Your task to perform on an android device: check data usage Image 0: 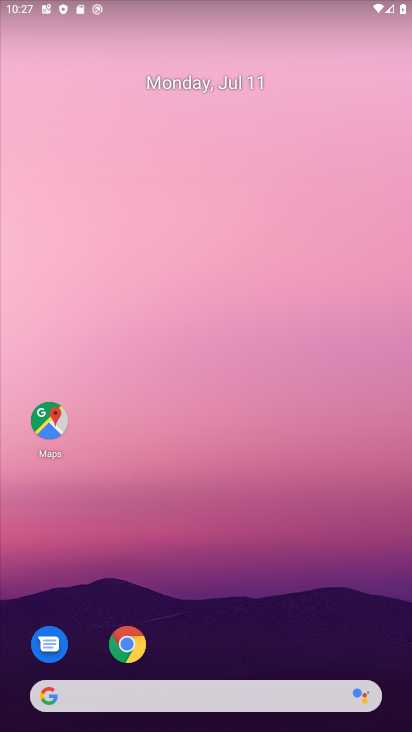
Step 0: press home button
Your task to perform on an android device: check data usage Image 1: 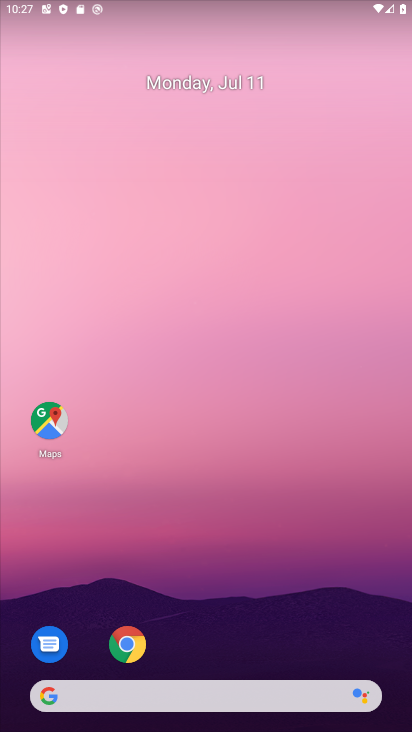
Step 1: drag from (210, 644) to (291, 79)
Your task to perform on an android device: check data usage Image 2: 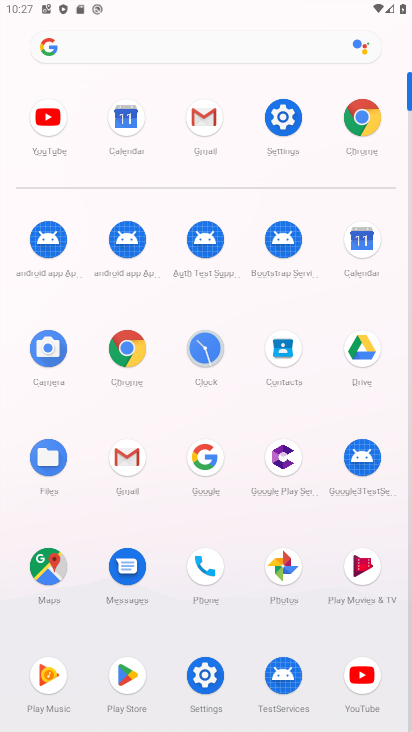
Step 2: click (281, 113)
Your task to perform on an android device: check data usage Image 3: 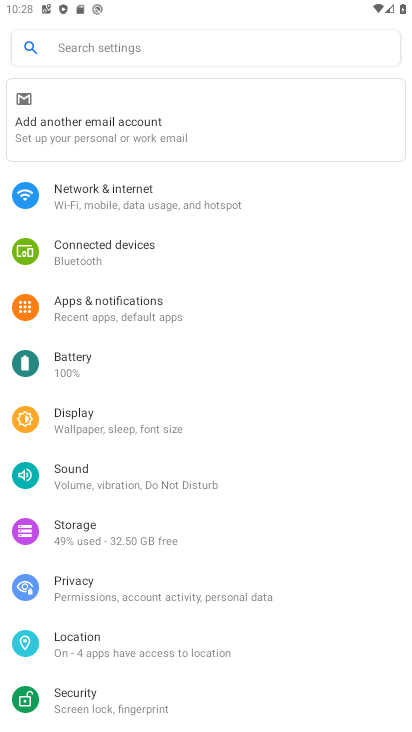
Step 3: click (156, 184)
Your task to perform on an android device: check data usage Image 4: 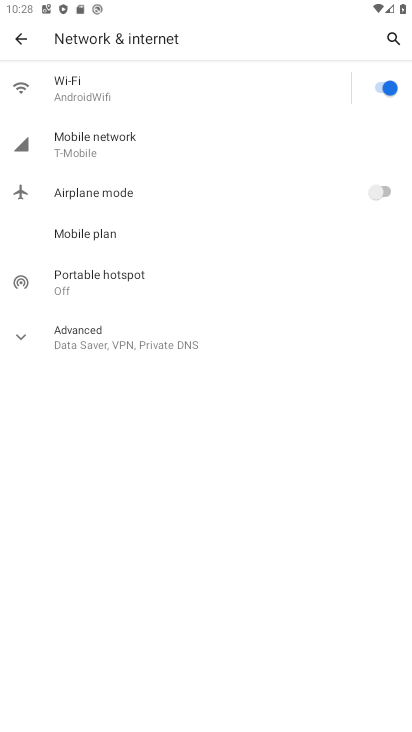
Step 4: click (91, 338)
Your task to perform on an android device: check data usage Image 5: 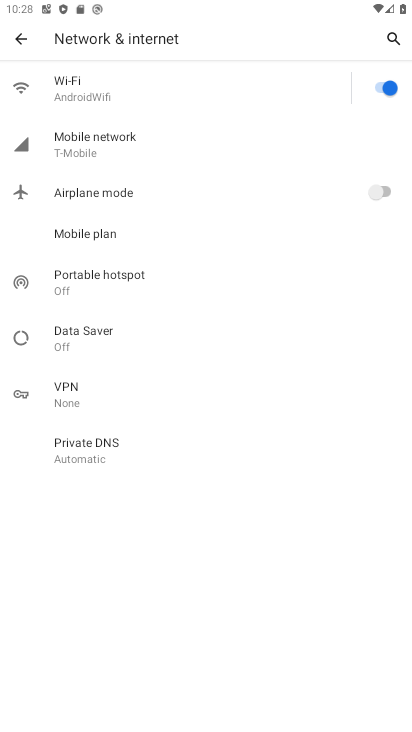
Step 5: click (119, 145)
Your task to perform on an android device: check data usage Image 6: 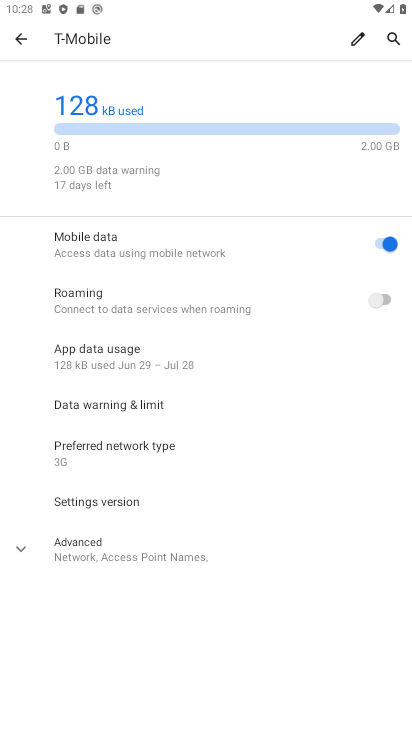
Step 6: click (98, 353)
Your task to perform on an android device: check data usage Image 7: 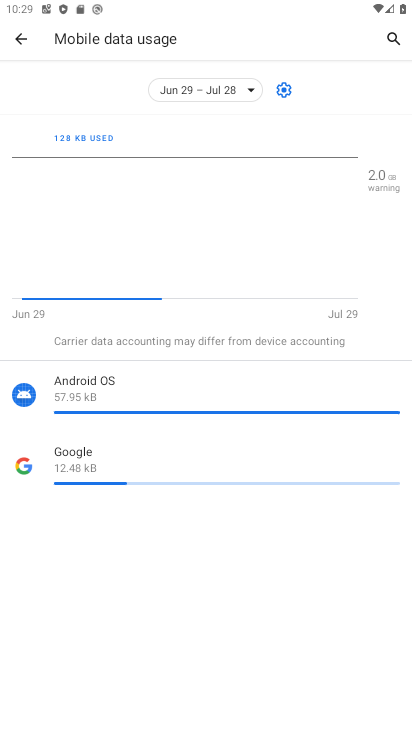
Step 7: task complete